Your task to perform on an android device: Open CNN.com Image 0: 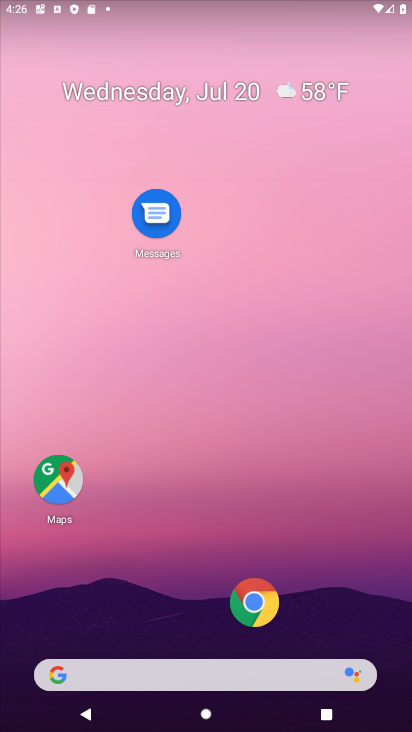
Step 0: click (253, 606)
Your task to perform on an android device: Open CNN.com Image 1: 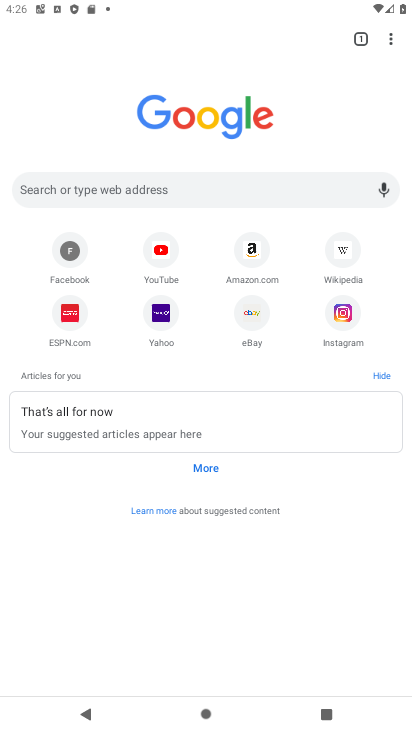
Step 1: click (207, 190)
Your task to perform on an android device: Open CNN.com Image 2: 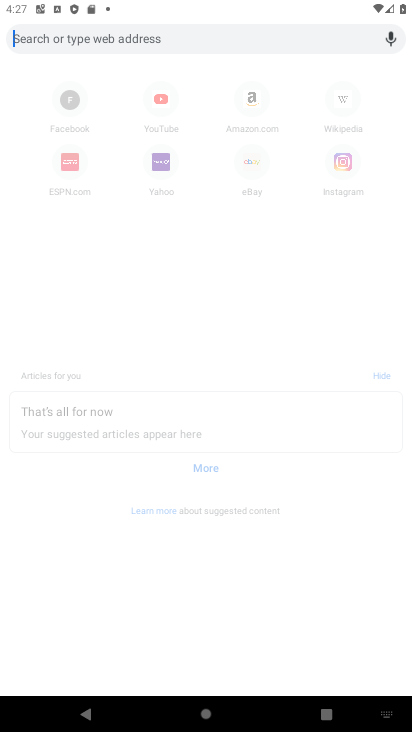
Step 2: type "www.cnn.com"
Your task to perform on an android device: Open CNN.com Image 3: 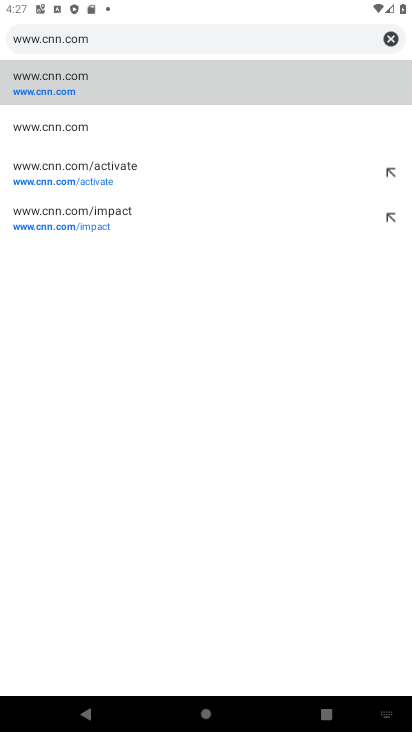
Step 3: click (56, 84)
Your task to perform on an android device: Open CNN.com Image 4: 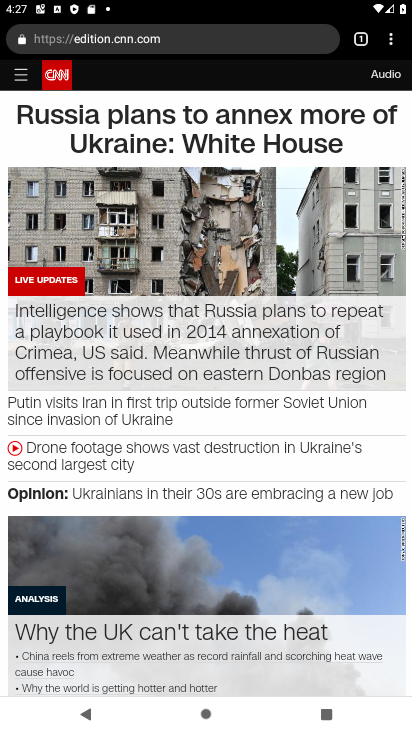
Step 4: task complete